Your task to perform on an android device: Go to ESPN.com Image 0: 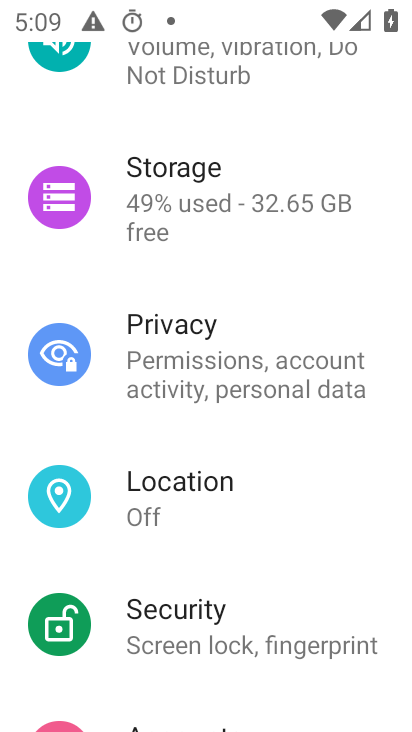
Step 0: press home button
Your task to perform on an android device: Go to ESPN.com Image 1: 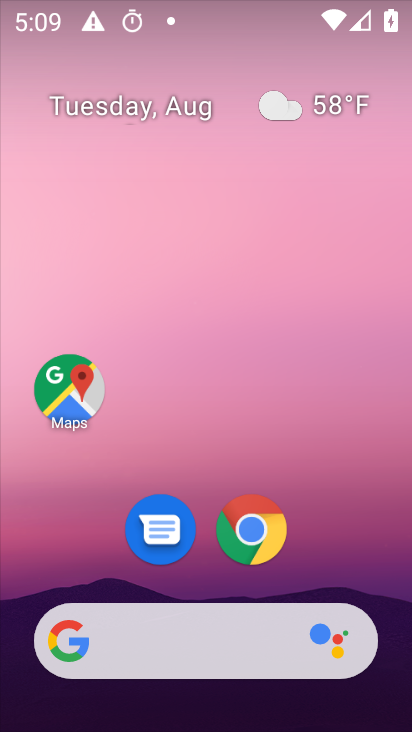
Step 1: click (243, 535)
Your task to perform on an android device: Go to ESPN.com Image 2: 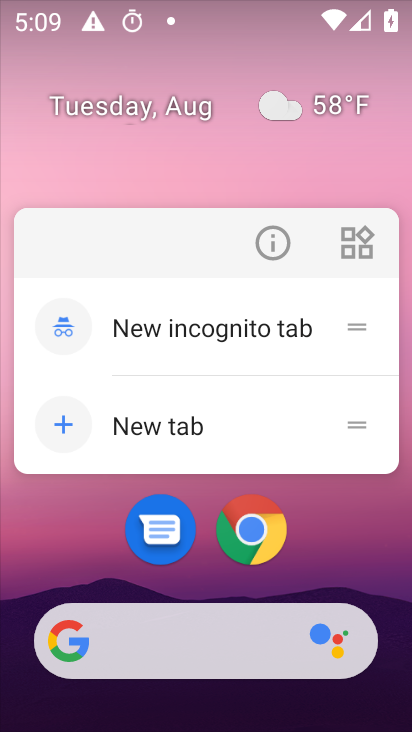
Step 2: click (247, 526)
Your task to perform on an android device: Go to ESPN.com Image 3: 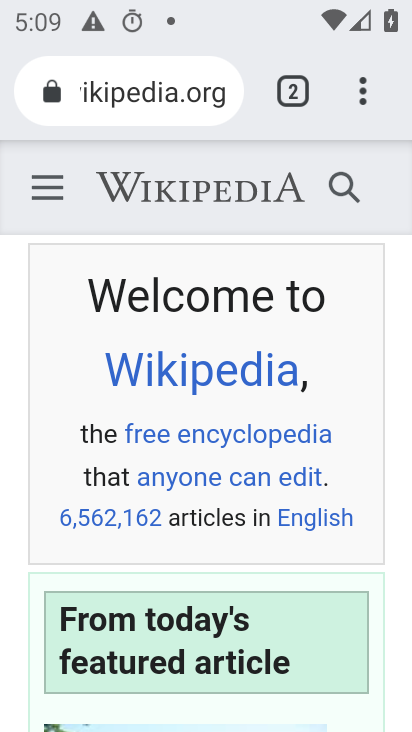
Step 3: click (292, 102)
Your task to perform on an android device: Go to ESPN.com Image 4: 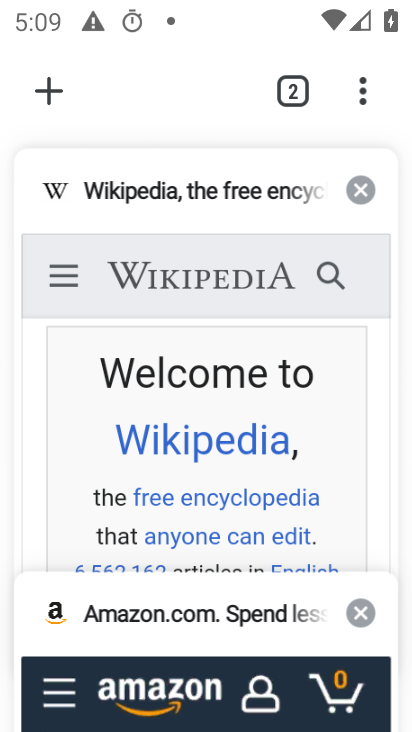
Step 4: click (57, 93)
Your task to perform on an android device: Go to ESPN.com Image 5: 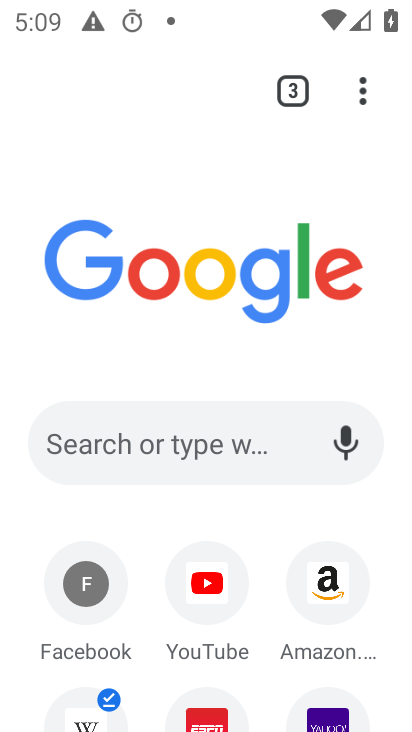
Step 5: click (210, 713)
Your task to perform on an android device: Go to ESPN.com Image 6: 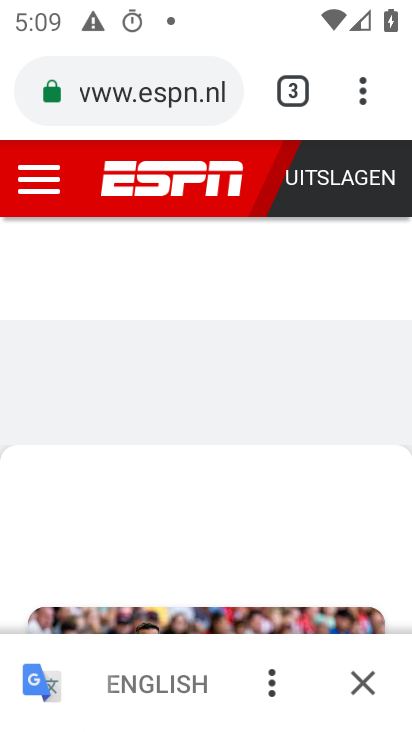
Step 6: task complete